Your task to perform on an android device: turn off picture-in-picture Image 0: 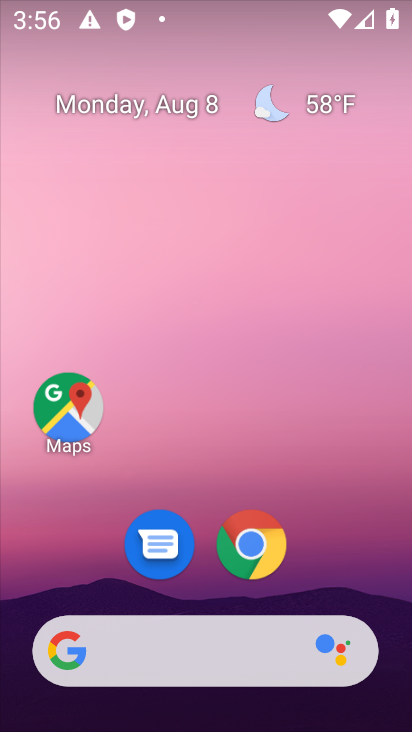
Step 0: click (259, 106)
Your task to perform on an android device: turn off picture-in-picture Image 1: 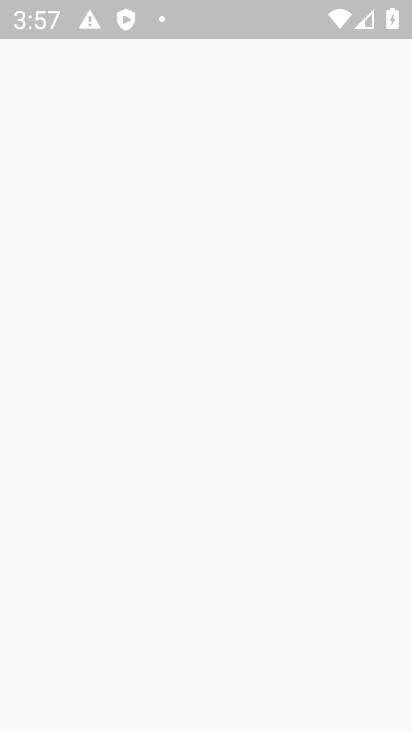
Step 1: press home button
Your task to perform on an android device: turn off picture-in-picture Image 2: 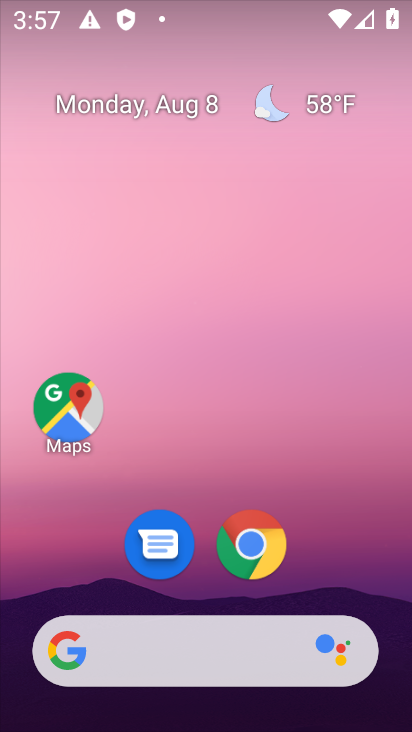
Step 2: drag from (245, 590) to (372, 8)
Your task to perform on an android device: turn off picture-in-picture Image 3: 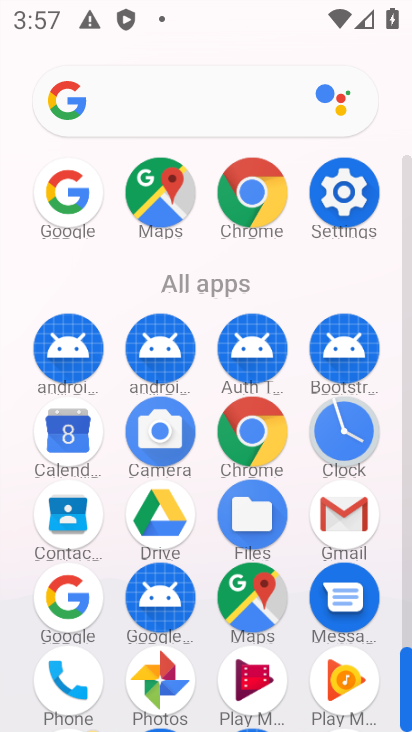
Step 3: click (345, 216)
Your task to perform on an android device: turn off picture-in-picture Image 4: 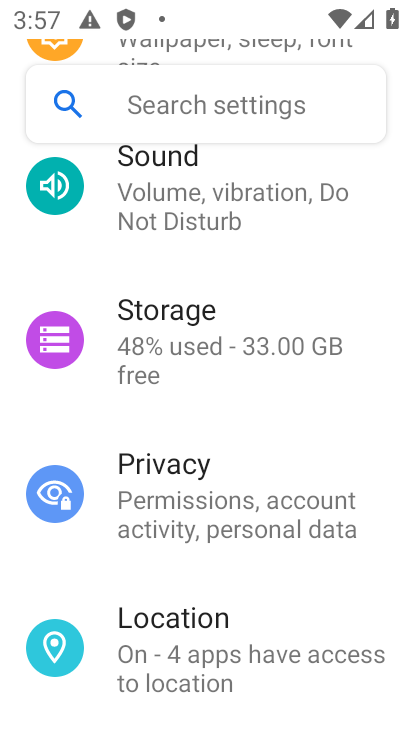
Step 4: drag from (233, 385) to (165, 641)
Your task to perform on an android device: turn off picture-in-picture Image 5: 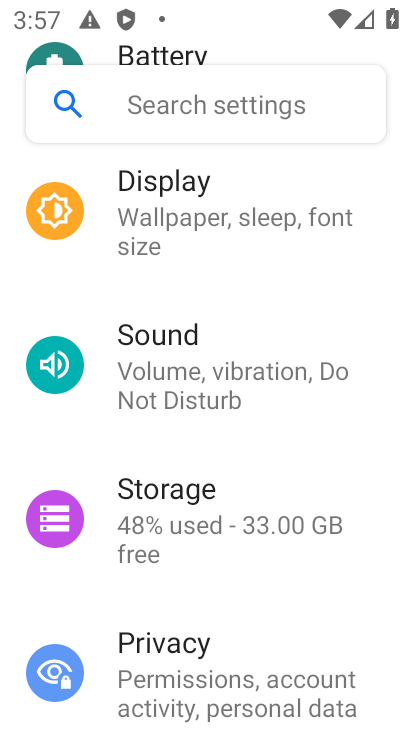
Step 5: drag from (154, 431) to (112, 729)
Your task to perform on an android device: turn off picture-in-picture Image 6: 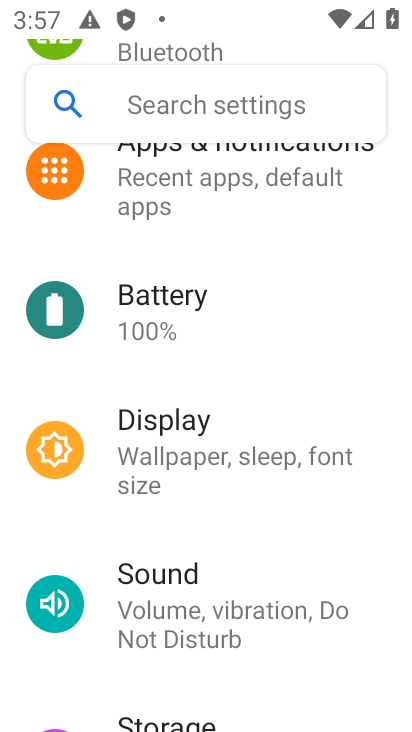
Step 6: drag from (163, 372) to (114, 731)
Your task to perform on an android device: turn off picture-in-picture Image 7: 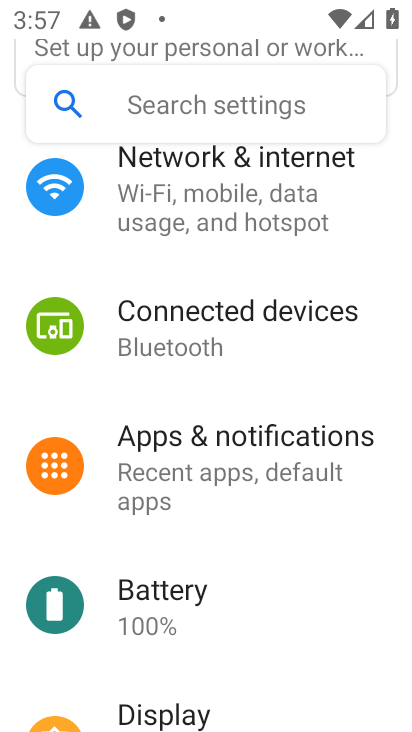
Step 7: drag from (205, 374) to (144, 728)
Your task to perform on an android device: turn off picture-in-picture Image 8: 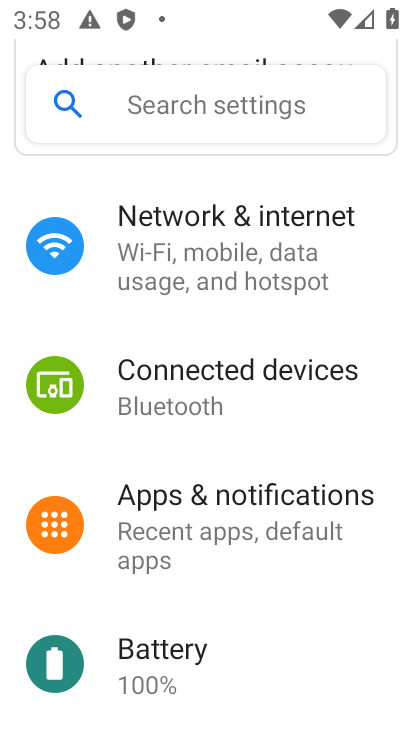
Step 8: click (232, 518)
Your task to perform on an android device: turn off picture-in-picture Image 9: 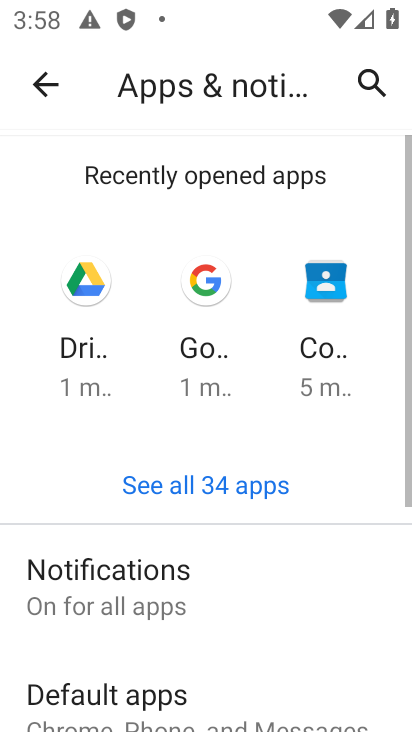
Step 9: drag from (206, 615) to (251, 0)
Your task to perform on an android device: turn off picture-in-picture Image 10: 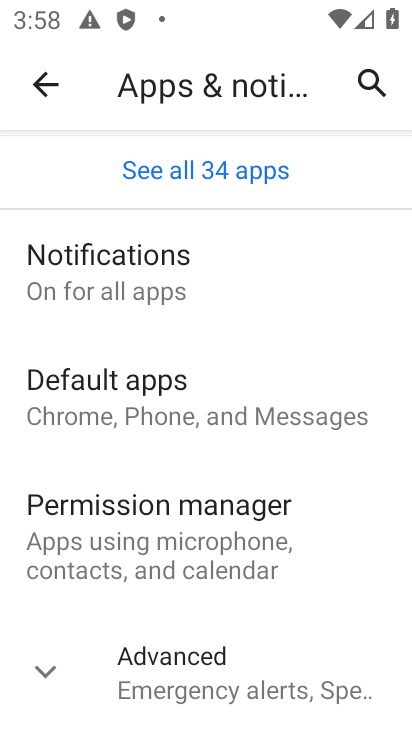
Step 10: click (170, 668)
Your task to perform on an android device: turn off picture-in-picture Image 11: 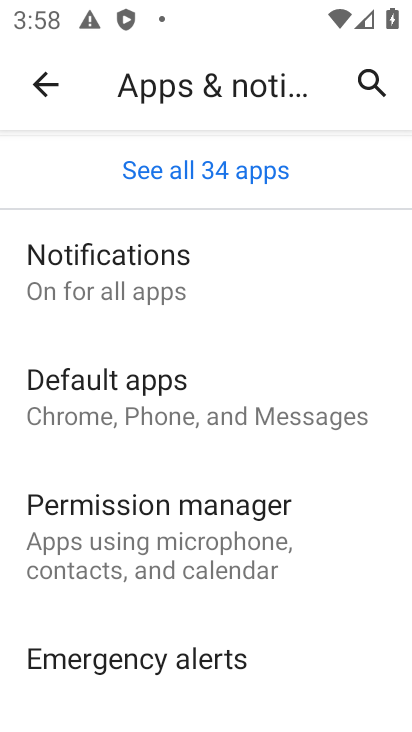
Step 11: drag from (175, 520) to (196, 17)
Your task to perform on an android device: turn off picture-in-picture Image 12: 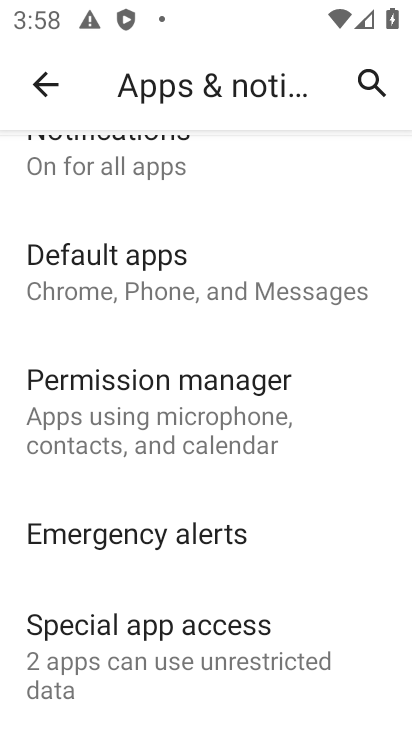
Step 12: click (167, 654)
Your task to perform on an android device: turn off picture-in-picture Image 13: 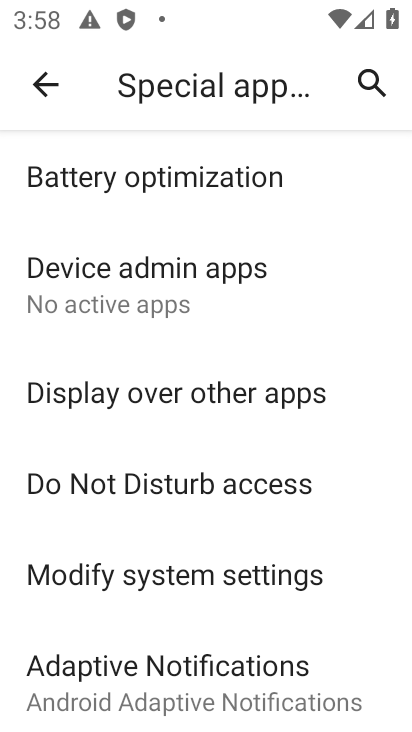
Step 13: drag from (233, 433) to (251, 78)
Your task to perform on an android device: turn off picture-in-picture Image 14: 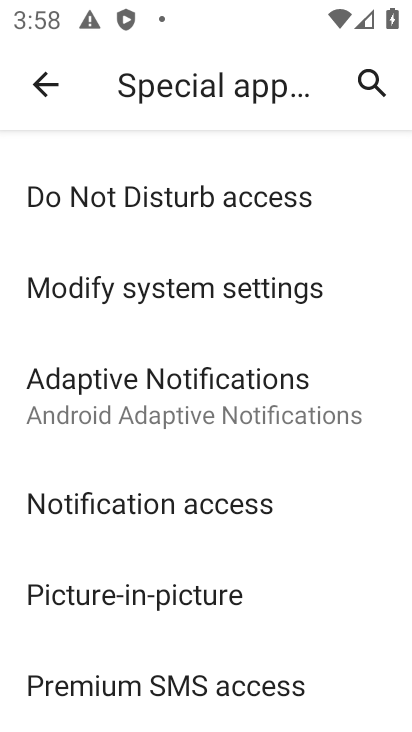
Step 14: click (159, 604)
Your task to perform on an android device: turn off picture-in-picture Image 15: 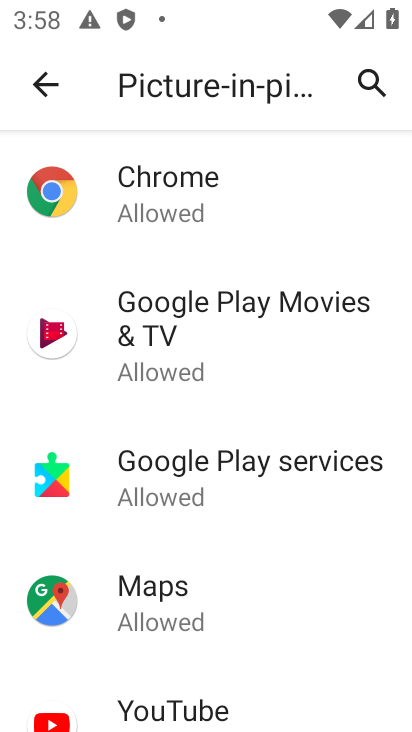
Step 15: click (186, 175)
Your task to perform on an android device: turn off picture-in-picture Image 16: 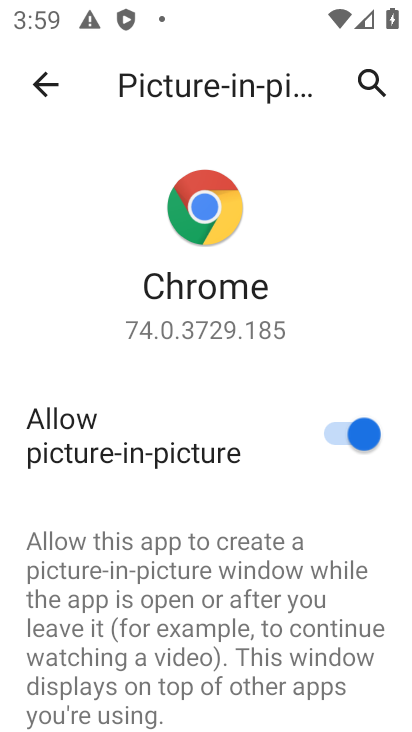
Step 16: click (343, 451)
Your task to perform on an android device: turn off picture-in-picture Image 17: 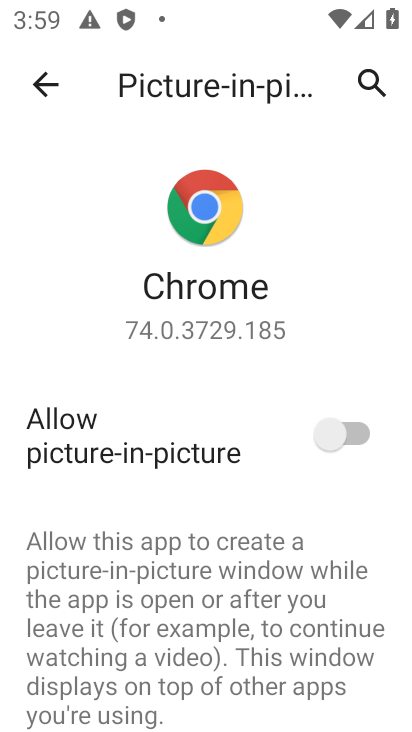
Step 17: task complete